Your task to perform on an android device: Is it going to rain this weekend? Image 0: 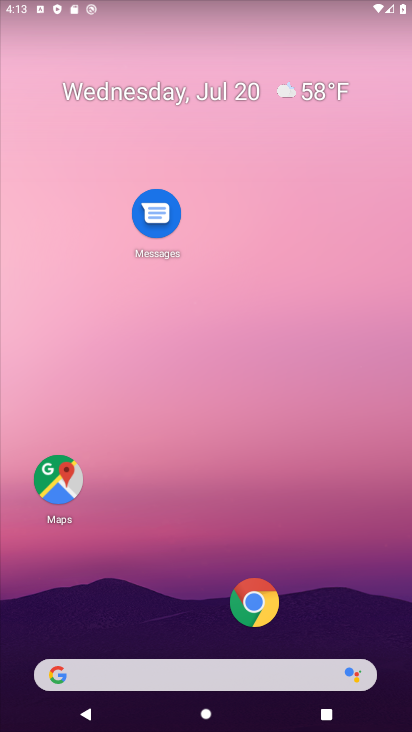
Step 0: click (143, 675)
Your task to perform on an android device: Is it going to rain this weekend? Image 1: 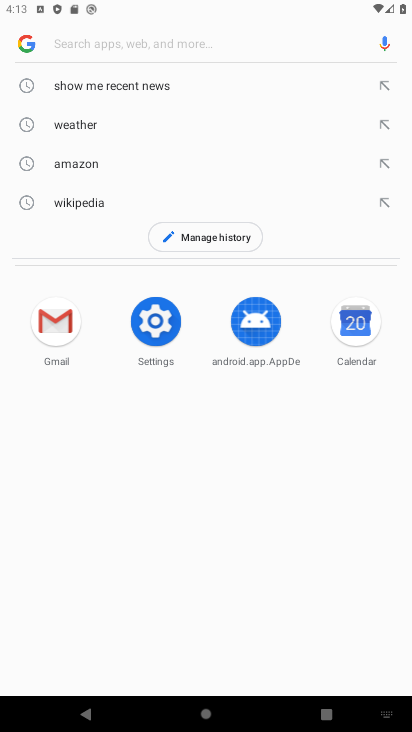
Step 1: click (57, 119)
Your task to perform on an android device: Is it going to rain this weekend? Image 2: 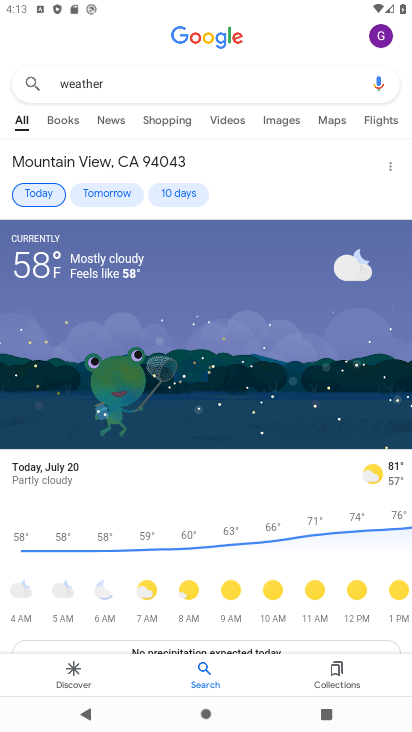
Step 2: click (169, 190)
Your task to perform on an android device: Is it going to rain this weekend? Image 3: 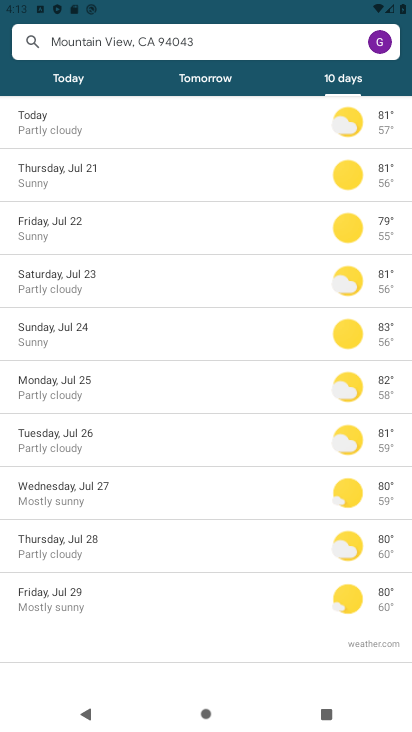
Step 3: task complete